Your task to perform on an android device: Open battery settings Image 0: 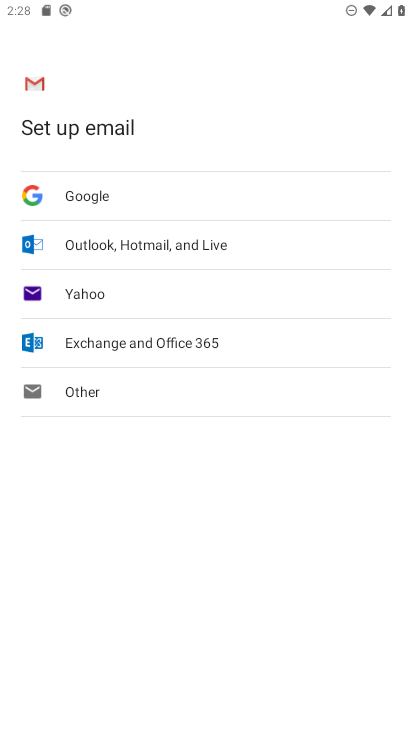
Step 0: press home button
Your task to perform on an android device: Open battery settings Image 1: 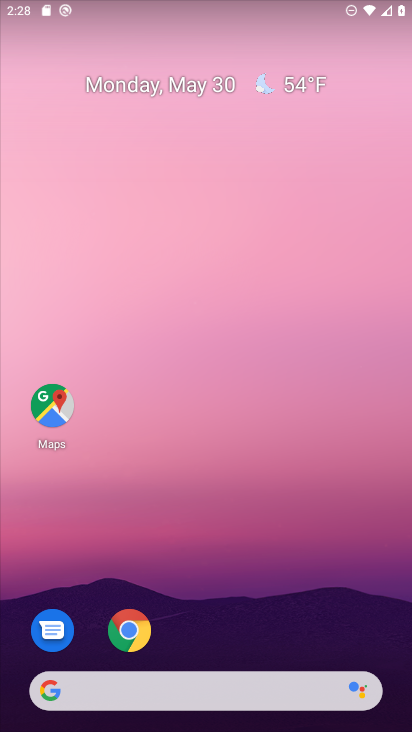
Step 1: drag from (162, 695) to (304, 100)
Your task to perform on an android device: Open battery settings Image 2: 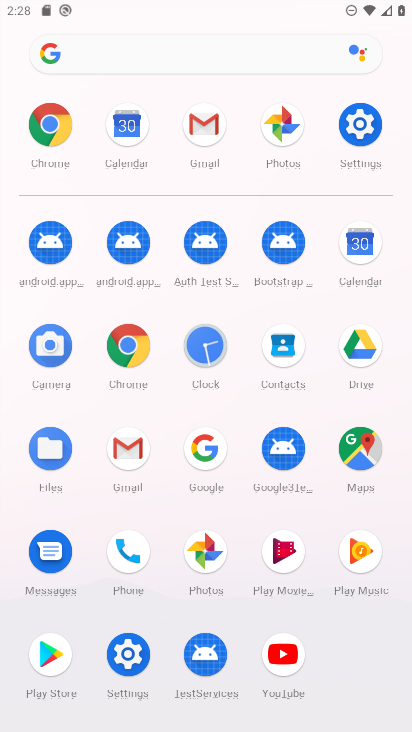
Step 2: click (357, 127)
Your task to perform on an android device: Open battery settings Image 3: 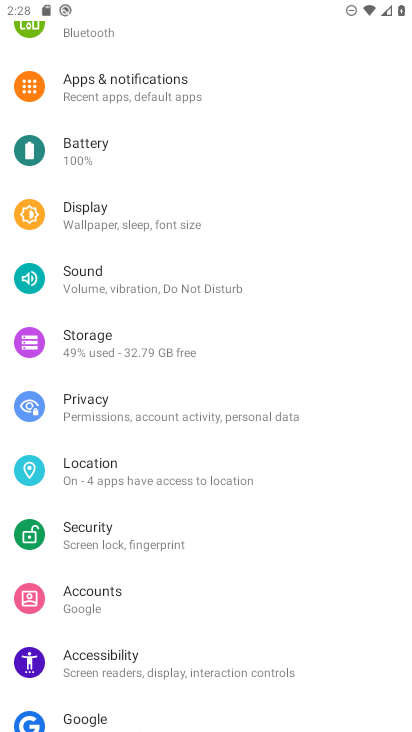
Step 3: click (107, 157)
Your task to perform on an android device: Open battery settings Image 4: 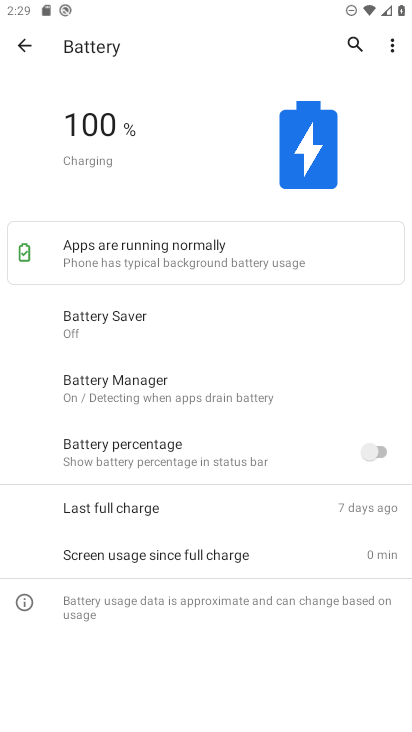
Step 4: task complete